Your task to perform on an android device: check storage Image 0: 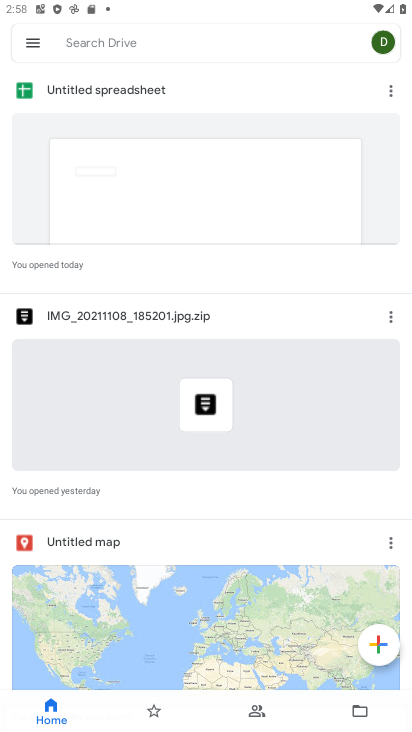
Step 0: press home button
Your task to perform on an android device: check storage Image 1: 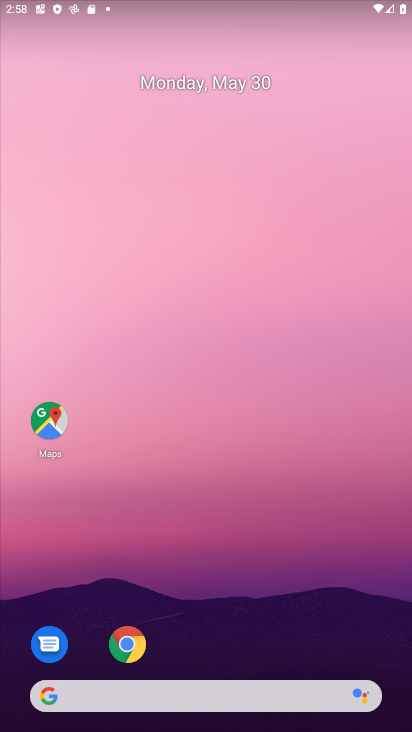
Step 1: drag from (269, 616) to (260, 215)
Your task to perform on an android device: check storage Image 2: 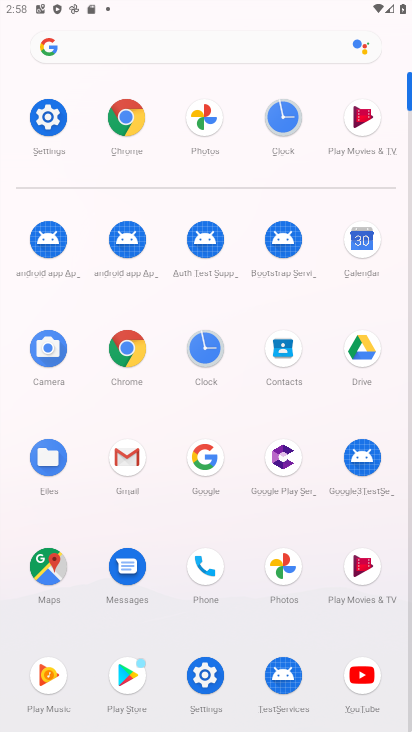
Step 2: click (28, 151)
Your task to perform on an android device: check storage Image 3: 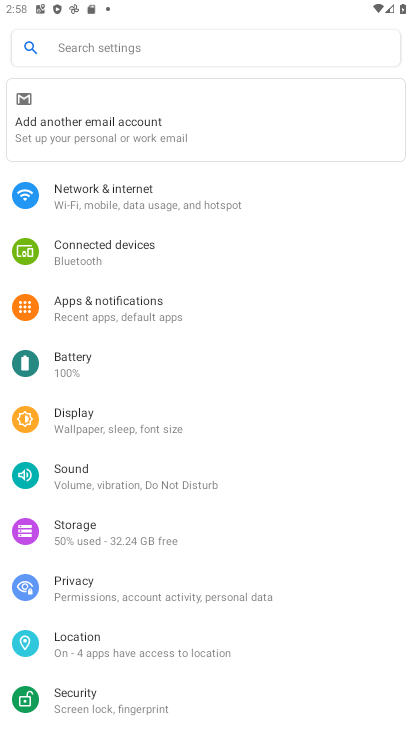
Step 3: click (151, 521)
Your task to perform on an android device: check storage Image 4: 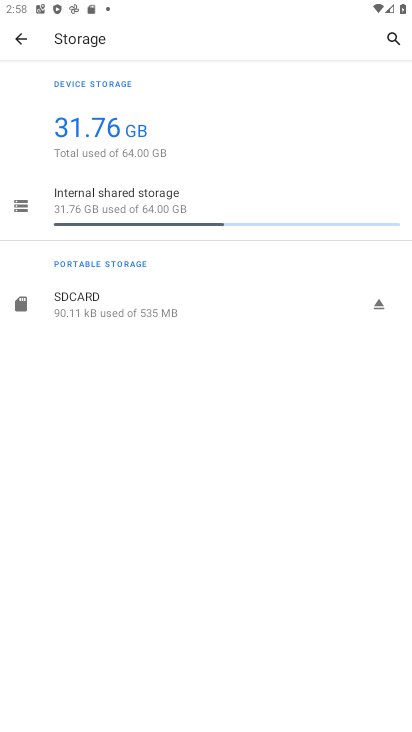
Step 4: task complete